Your task to perform on an android device: toggle pop-ups in chrome Image 0: 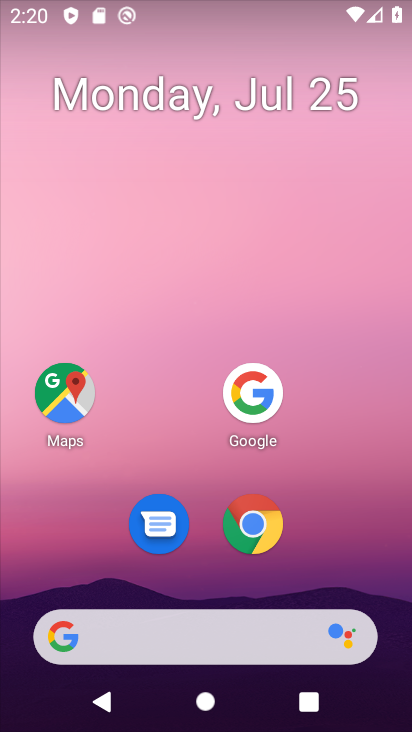
Step 0: press home button
Your task to perform on an android device: toggle pop-ups in chrome Image 1: 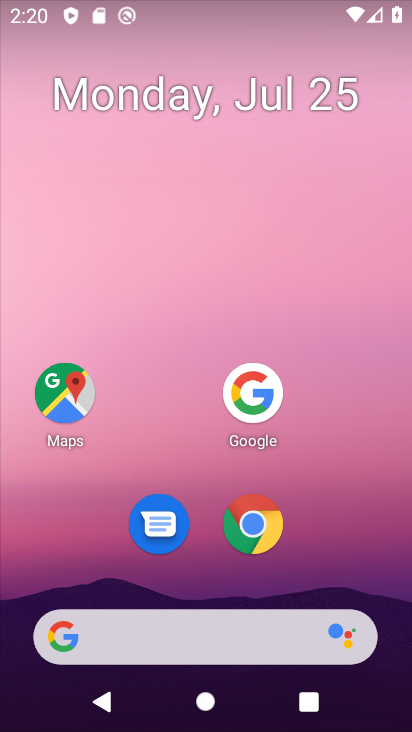
Step 1: click (240, 530)
Your task to perform on an android device: toggle pop-ups in chrome Image 2: 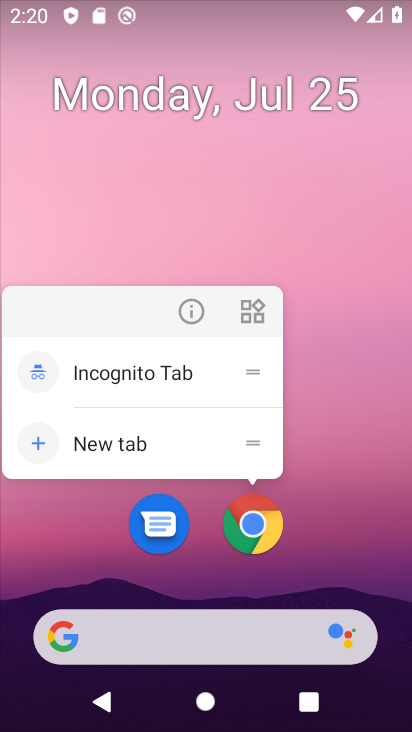
Step 2: click (263, 513)
Your task to perform on an android device: toggle pop-ups in chrome Image 3: 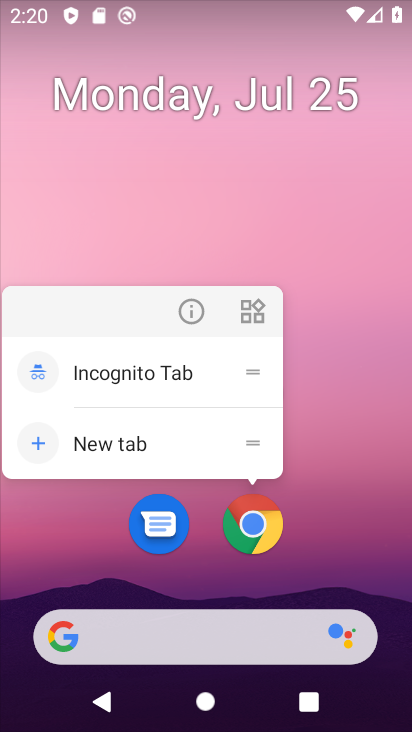
Step 3: click (244, 540)
Your task to perform on an android device: toggle pop-ups in chrome Image 4: 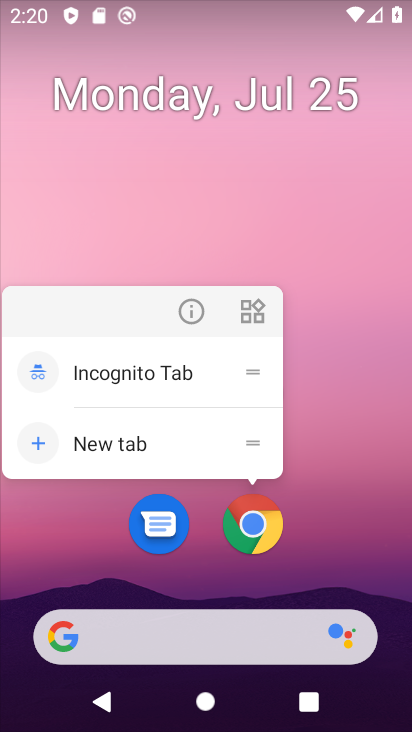
Step 4: click (252, 531)
Your task to perform on an android device: toggle pop-ups in chrome Image 5: 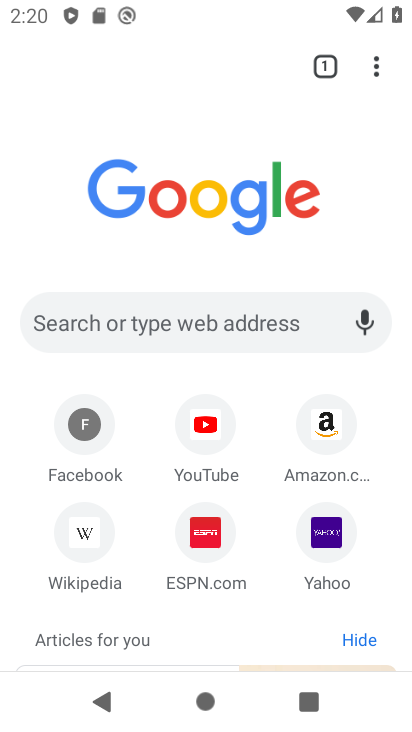
Step 5: drag from (379, 69) to (262, 550)
Your task to perform on an android device: toggle pop-ups in chrome Image 6: 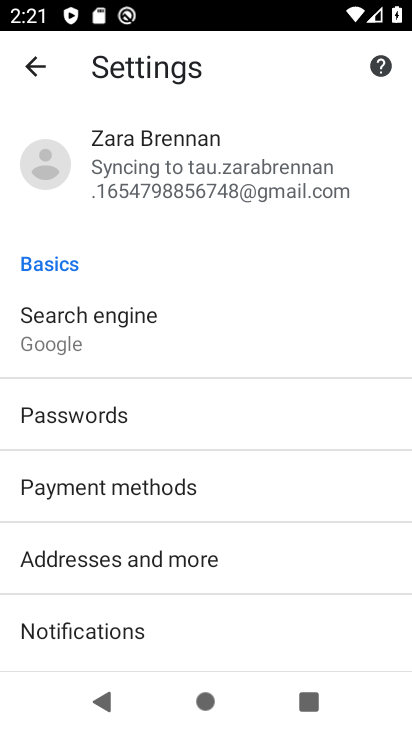
Step 6: drag from (162, 604) to (280, 78)
Your task to perform on an android device: toggle pop-ups in chrome Image 7: 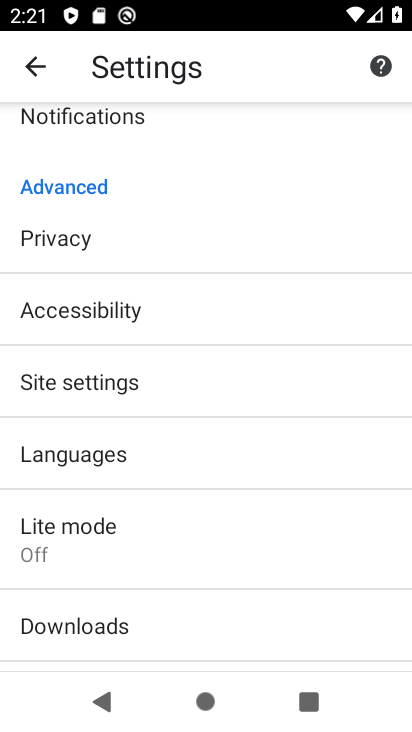
Step 7: click (101, 385)
Your task to perform on an android device: toggle pop-ups in chrome Image 8: 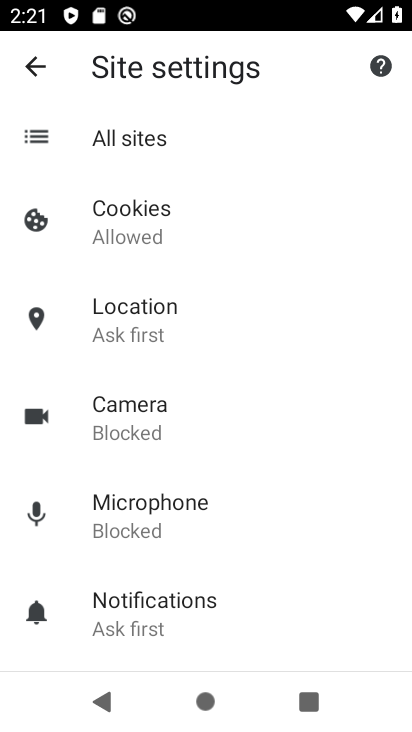
Step 8: drag from (237, 588) to (263, 167)
Your task to perform on an android device: toggle pop-ups in chrome Image 9: 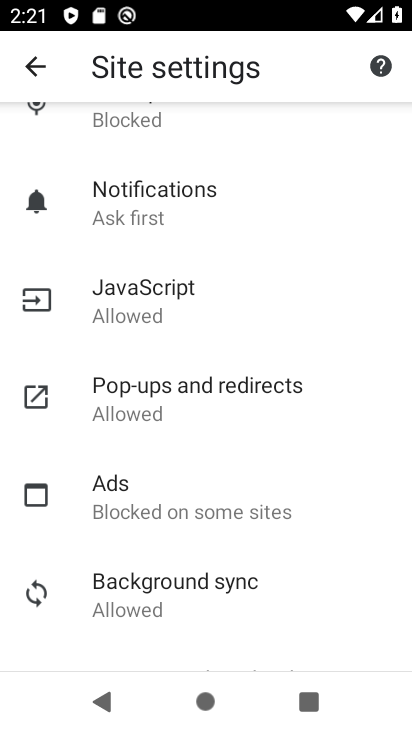
Step 9: click (190, 397)
Your task to perform on an android device: toggle pop-ups in chrome Image 10: 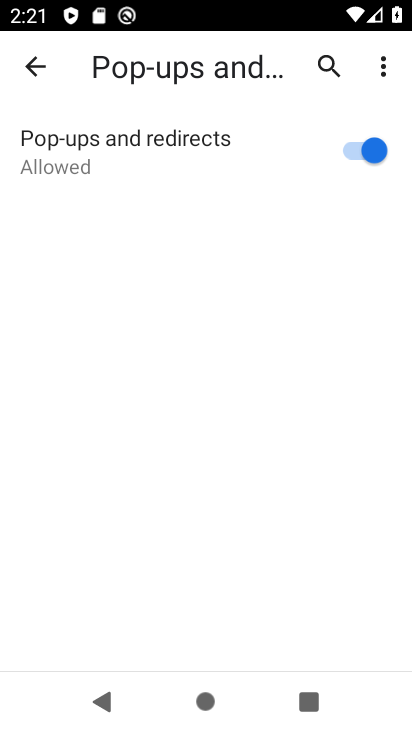
Step 10: click (357, 149)
Your task to perform on an android device: toggle pop-ups in chrome Image 11: 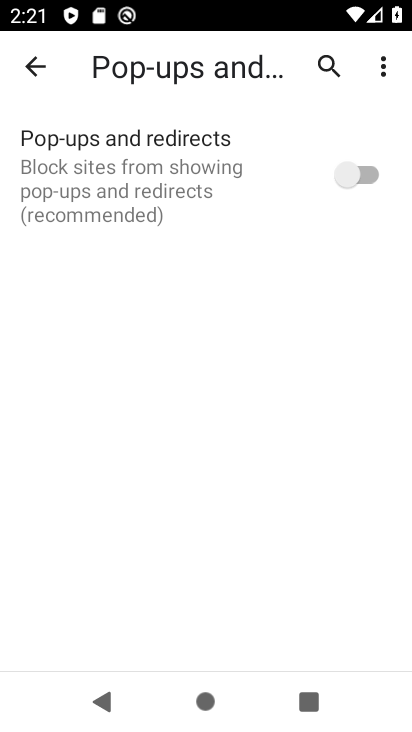
Step 11: task complete